Your task to perform on an android device: What is the news today? Image 0: 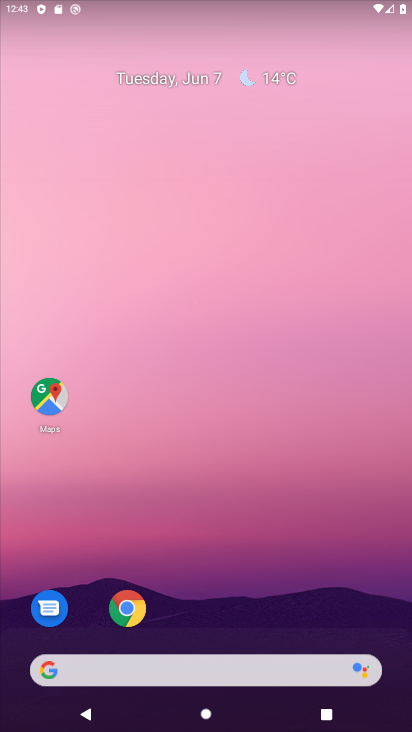
Step 0: click (210, 677)
Your task to perform on an android device: What is the news today? Image 1: 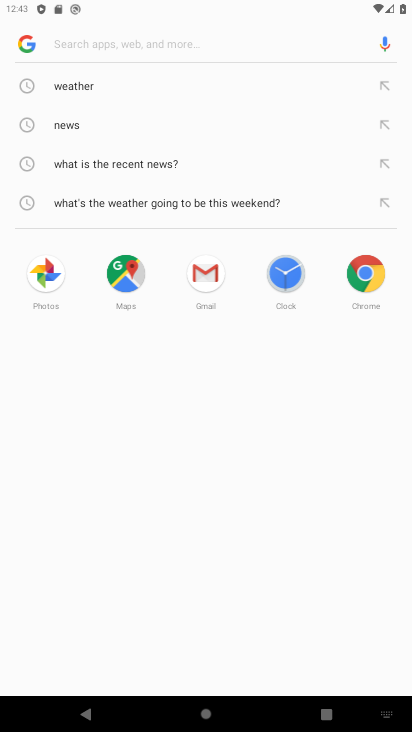
Step 1: type "What is the news today?"
Your task to perform on an android device: What is the news today? Image 2: 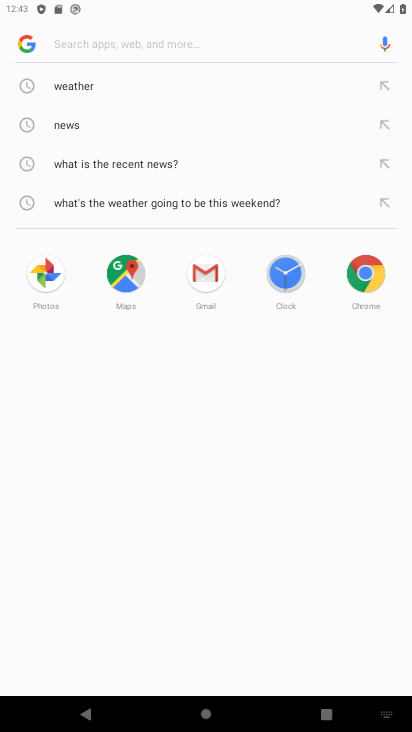
Step 2: click (203, 46)
Your task to perform on an android device: What is the news today? Image 3: 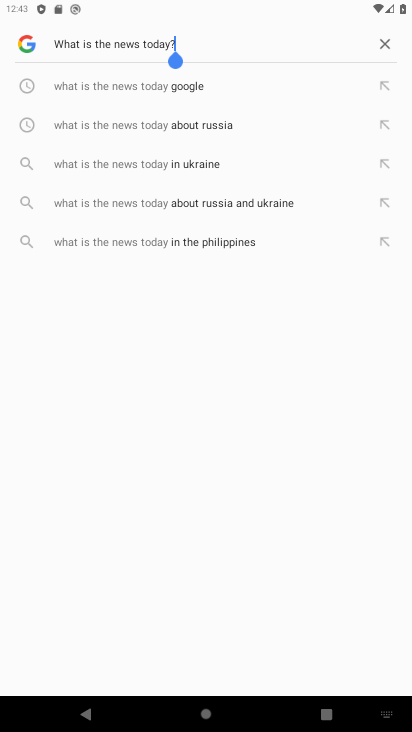
Step 3: click (150, 90)
Your task to perform on an android device: What is the news today? Image 4: 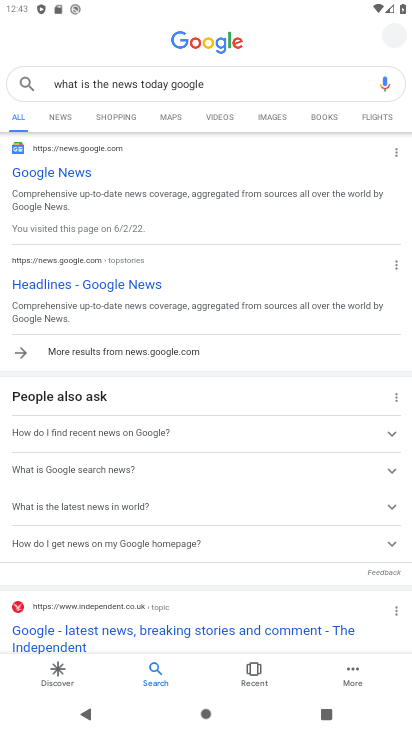
Step 4: task complete